Your task to perform on an android device: Go to wifi settings Image 0: 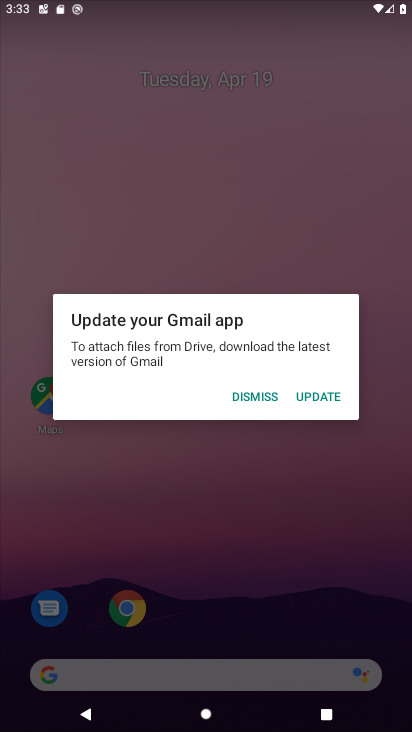
Step 0: press home button
Your task to perform on an android device: Go to wifi settings Image 1: 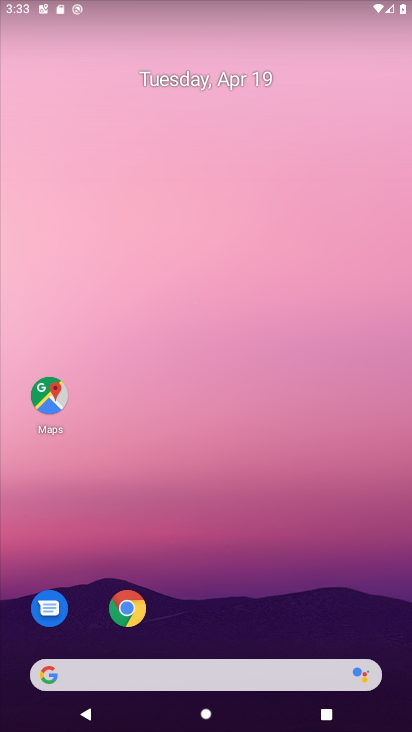
Step 1: drag from (248, 610) to (263, 197)
Your task to perform on an android device: Go to wifi settings Image 2: 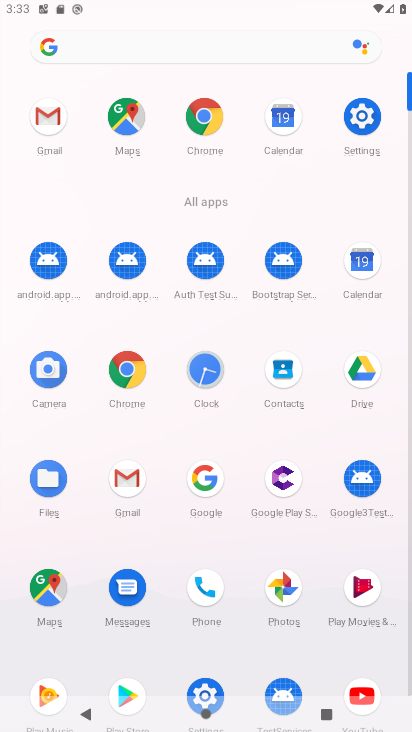
Step 2: click (366, 120)
Your task to perform on an android device: Go to wifi settings Image 3: 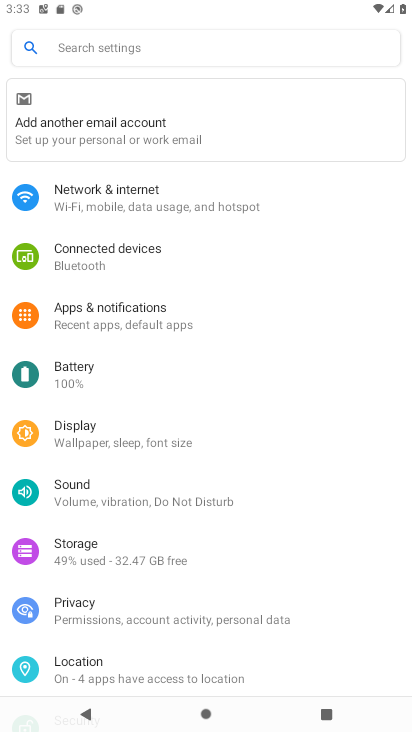
Step 3: click (135, 193)
Your task to perform on an android device: Go to wifi settings Image 4: 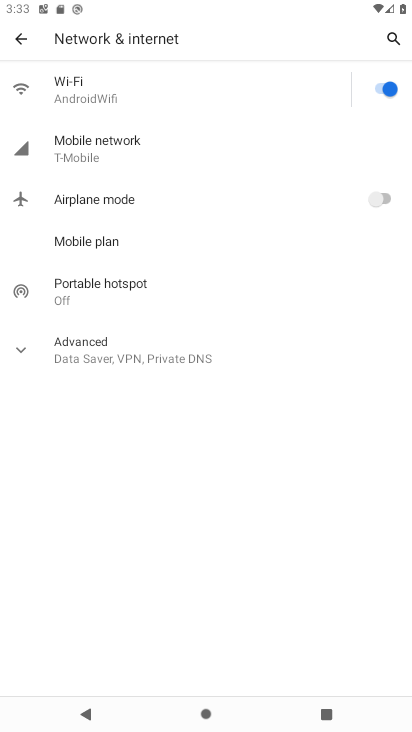
Step 4: click (195, 83)
Your task to perform on an android device: Go to wifi settings Image 5: 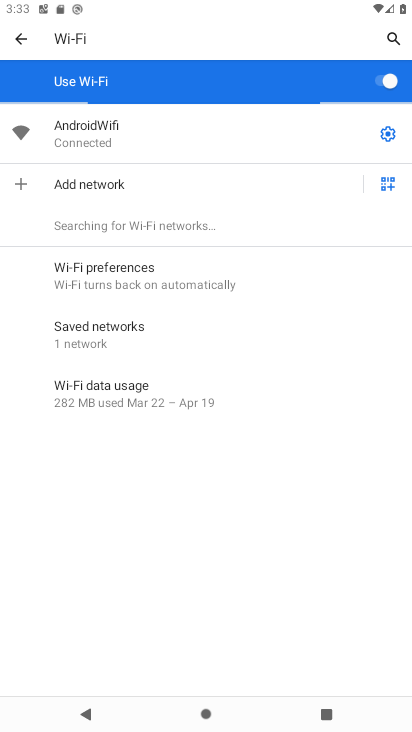
Step 5: click (390, 134)
Your task to perform on an android device: Go to wifi settings Image 6: 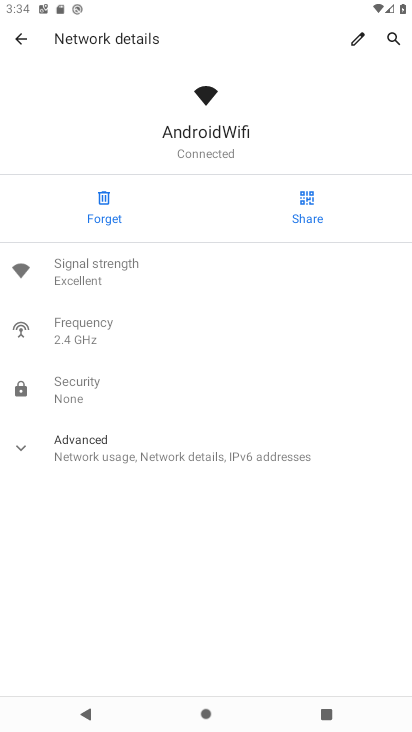
Step 6: task complete